Your task to perform on an android device: search for starred emails in the gmail app Image 0: 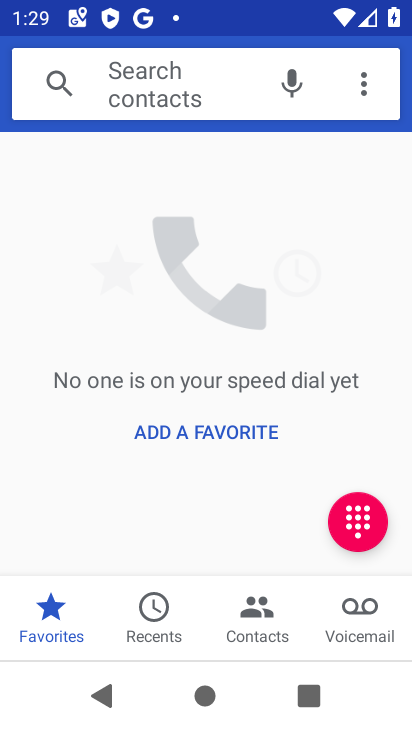
Step 0: press home button
Your task to perform on an android device: search for starred emails in the gmail app Image 1: 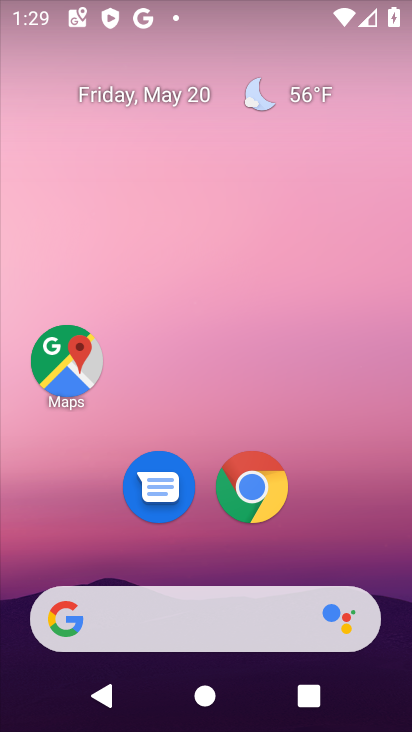
Step 1: drag from (206, 551) to (228, 22)
Your task to perform on an android device: search for starred emails in the gmail app Image 2: 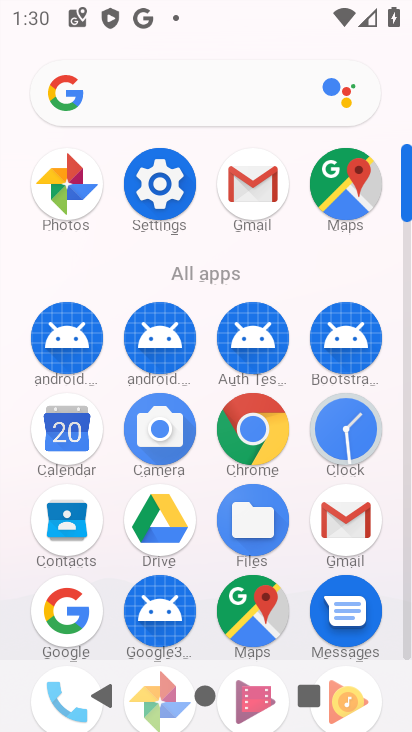
Step 2: click (344, 510)
Your task to perform on an android device: search for starred emails in the gmail app Image 3: 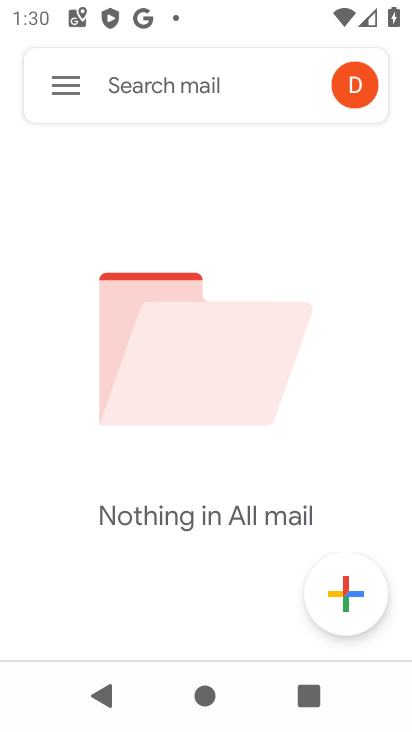
Step 3: click (70, 84)
Your task to perform on an android device: search for starred emails in the gmail app Image 4: 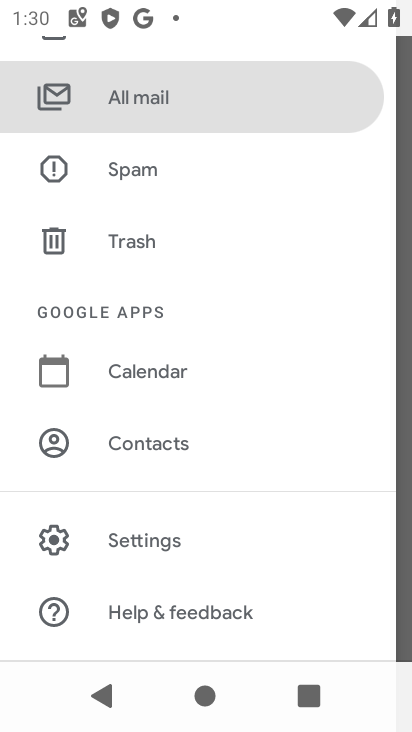
Step 4: drag from (129, 83) to (153, 619)
Your task to perform on an android device: search for starred emails in the gmail app Image 5: 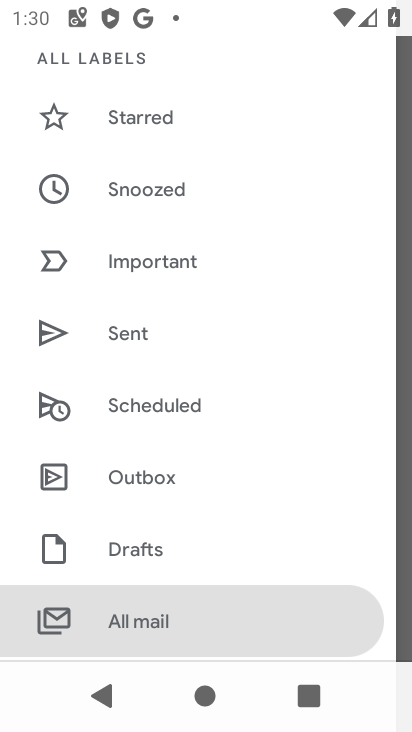
Step 5: click (178, 113)
Your task to perform on an android device: search for starred emails in the gmail app Image 6: 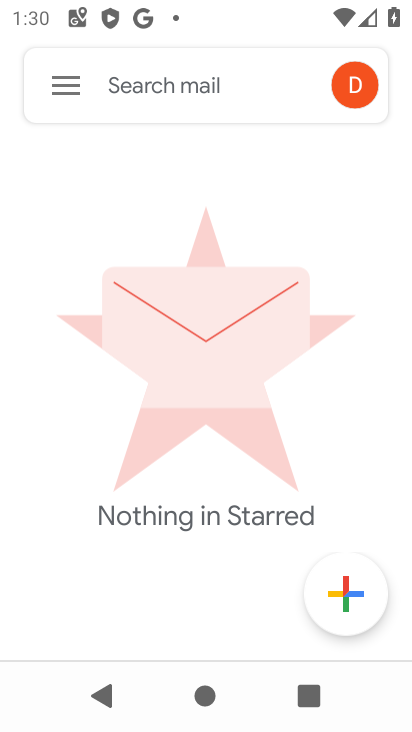
Step 6: task complete